Your task to perform on an android device: change the clock display to show seconds Image 0: 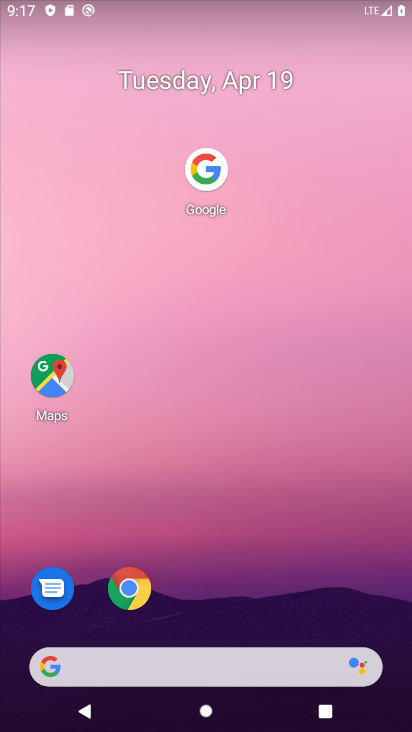
Step 0: drag from (210, 539) to (165, 158)
Your task to perform on an android device: change the clock display to show seconds Image 1: 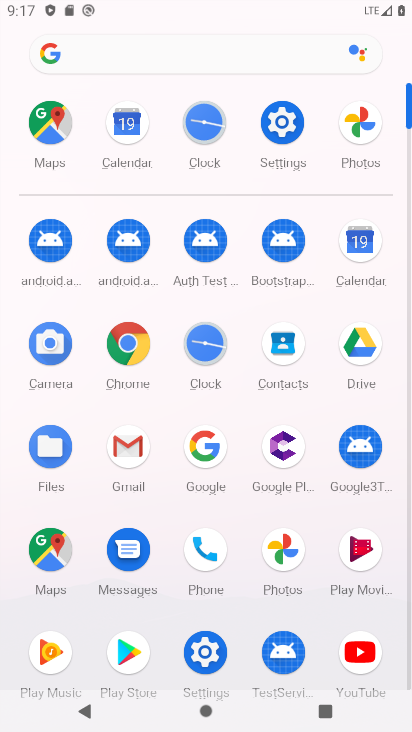
Step 1: click (200, 353)
Your task to perform on an android device: change the clock display to show seconds Image 2: 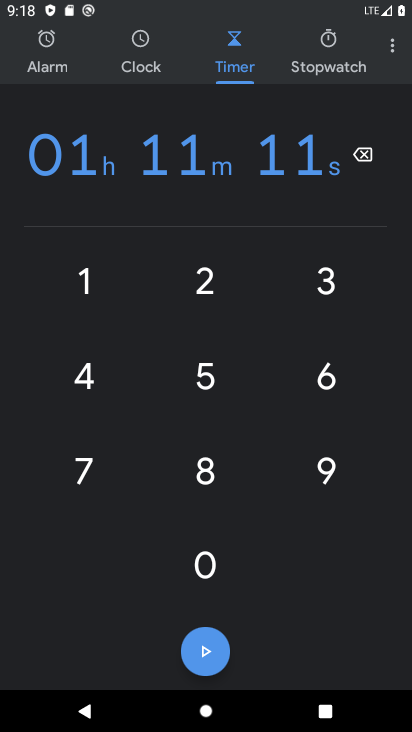
Step 2: click (388, 54)
Your task to perform on an android device: change the clock display to show seconds Image 3: 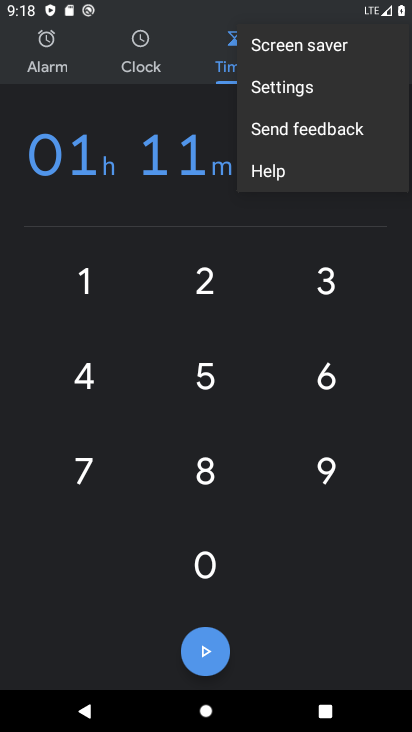
Step 3: click (293, 87)
Your task to perform on an android device: change the clock display to show seconds Image 4: 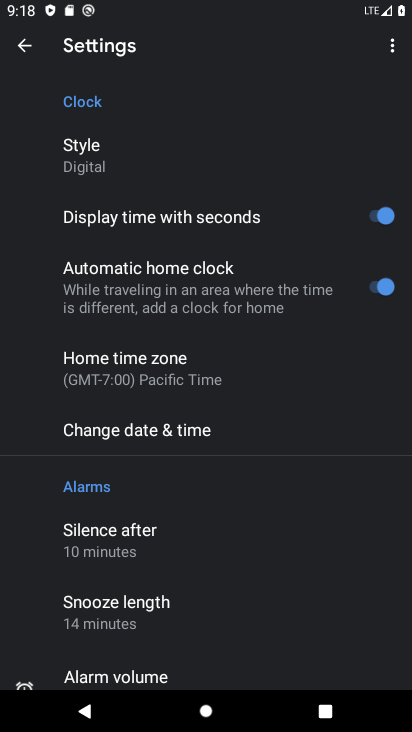
Step 4: task complete